Your task to perform on an android device: Show me the alarms in the clock app Image 0: 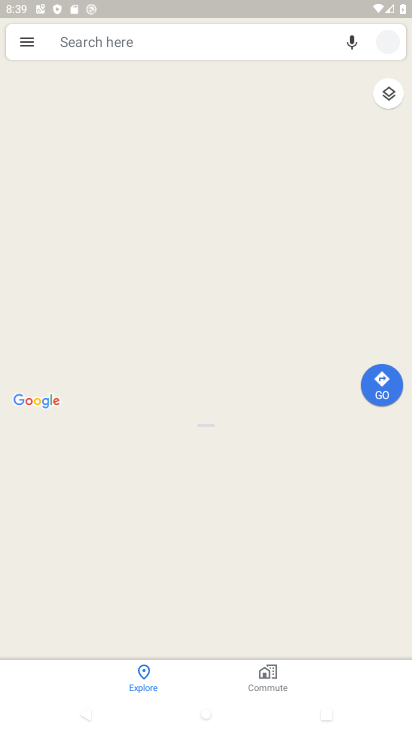
Step 0: press home button
Your task to perform on an android device: Show me the alarms in the clock app Image 1: 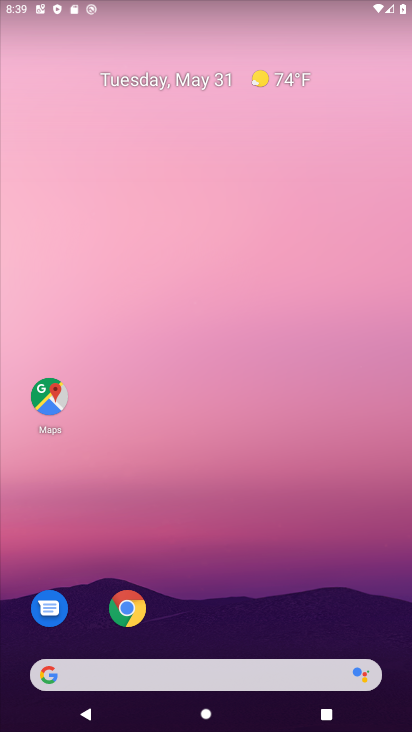
Step 1: drag from (214, 643) to (335, 14)
Your task to perform on an android device: Show me the alarms in the clock app Image 2: 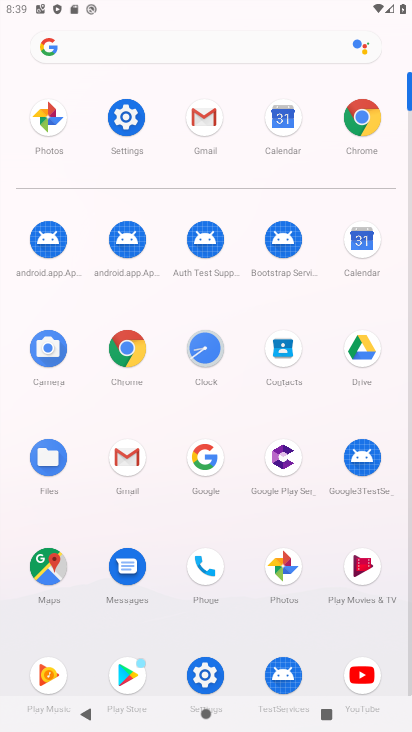
Step 2: click (191, 346)
Your task to perform on an android device: Show me the alarms in the clock app Image 3: 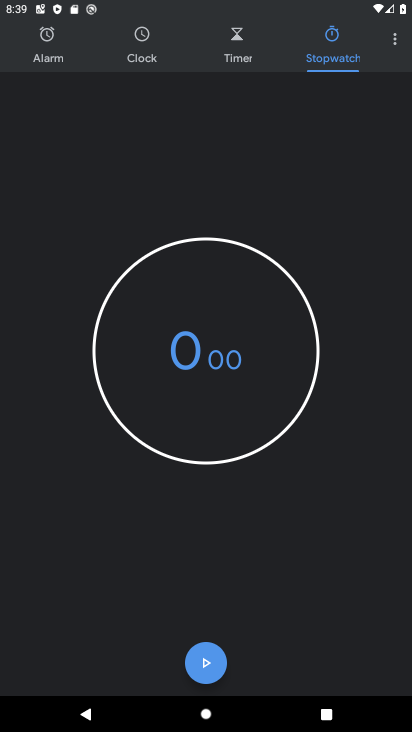
Step 3: click (53, 36)
Your task to perform on an android device: Show me the alarms in the clock app Image 4: 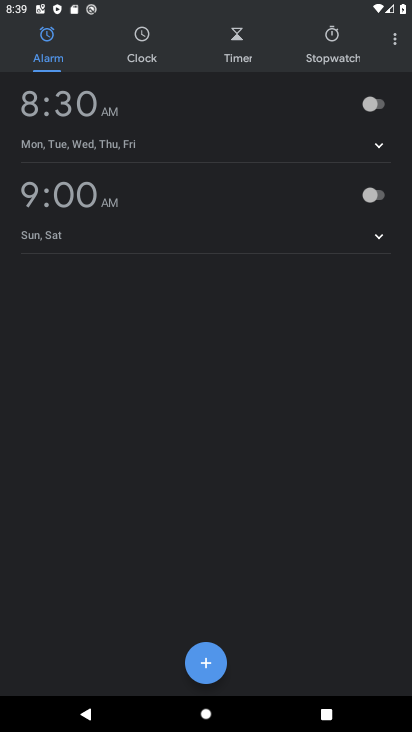
Step 4: task complete